Your task to perform on an android device: Go to Wikipedia Image 0: 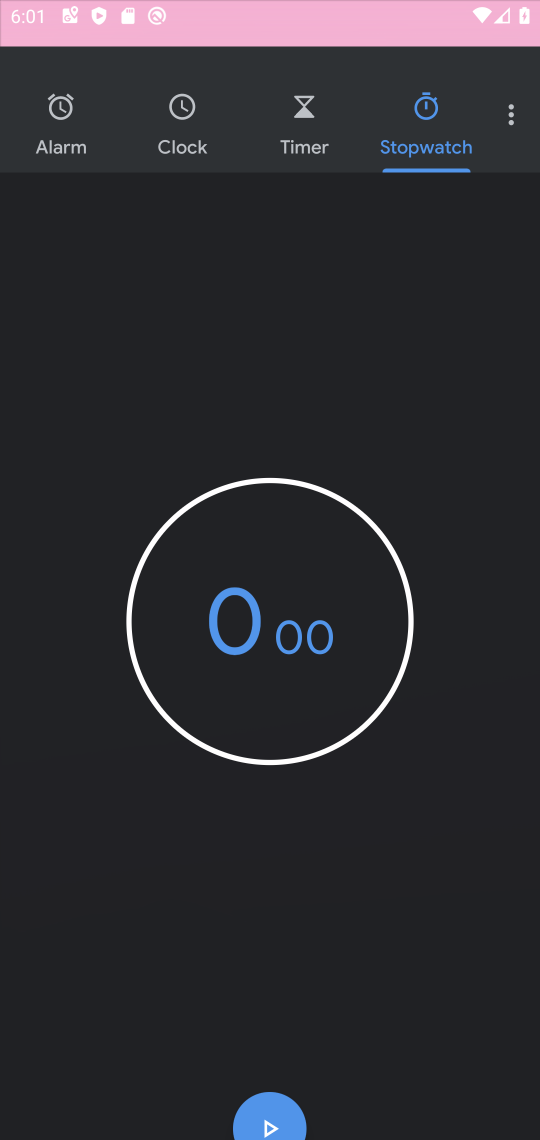
Step 0: press home button
Your task to perform on an android device: Go to Wikipedia Image 1: 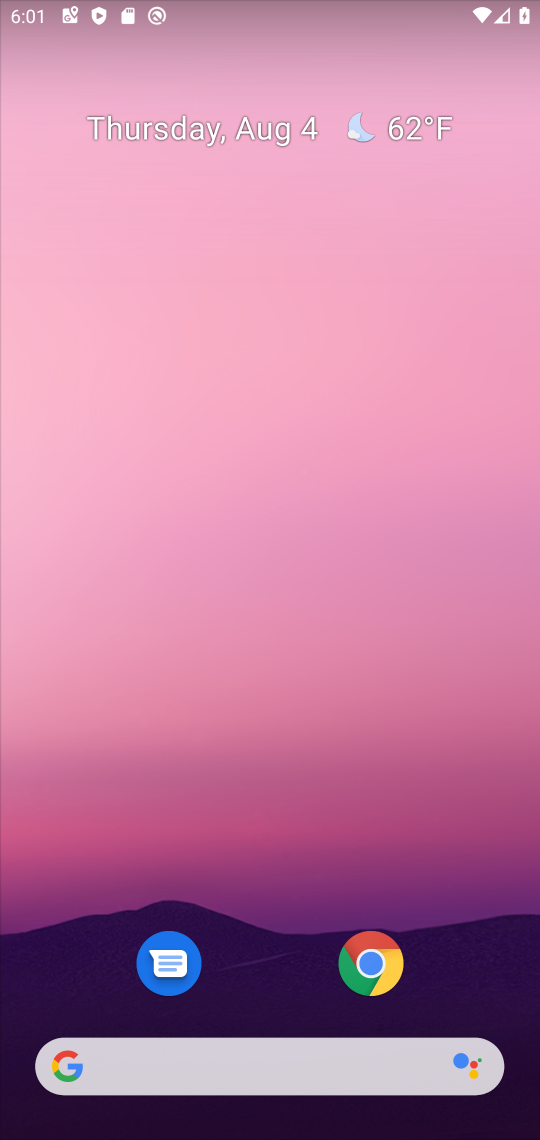
Step 1: click (364, 974)
Your task to perform on an android device: Go to Wikipedia Image 2: 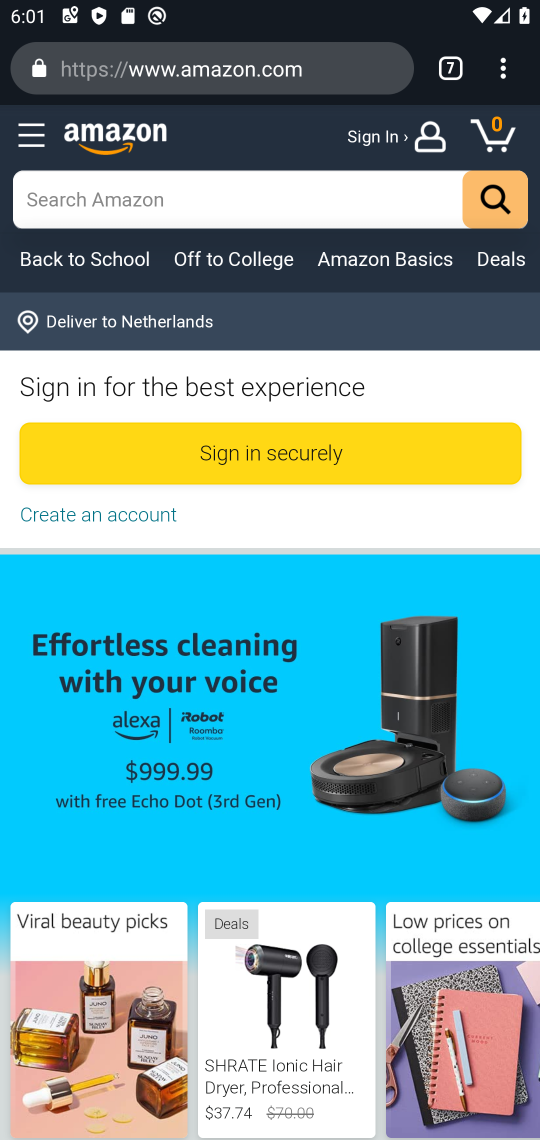
Step 2: click (513, 75)
Your task to perform on an android device: Go to Wikipedia Image 3: 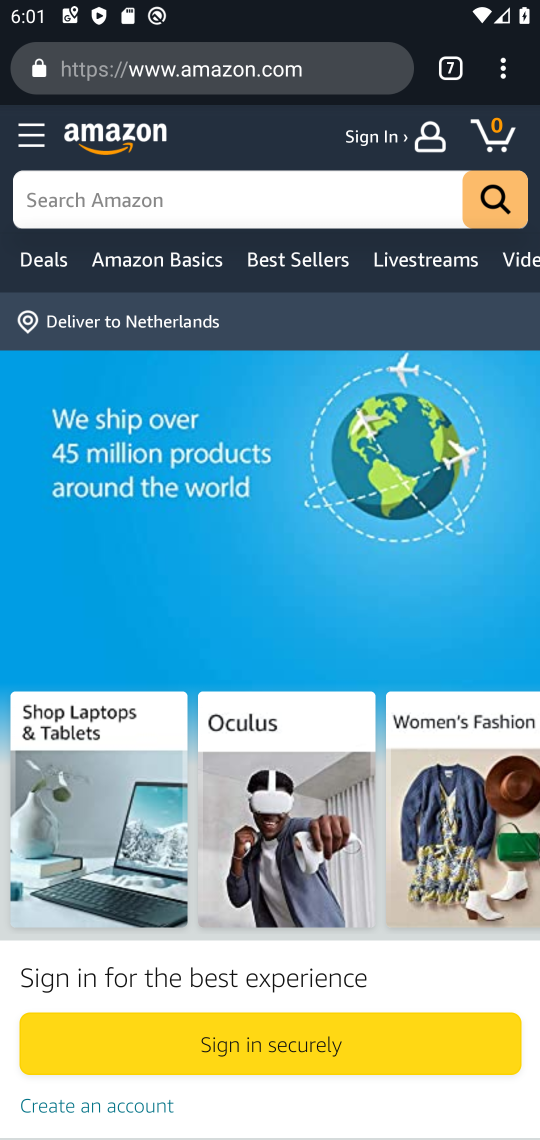
Step 3: click (512, 69)
Your task to perform on an android device: Go to Wikipedia Image 4: 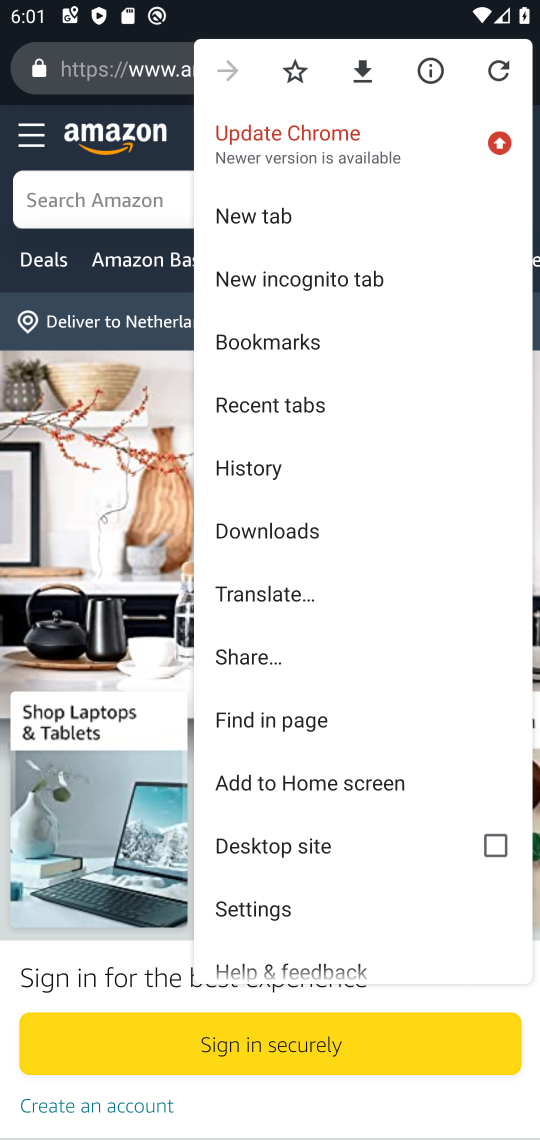
Step 4: click (264, 217)
Your task to perform on an android device: Go to Wikipedia Image 5: 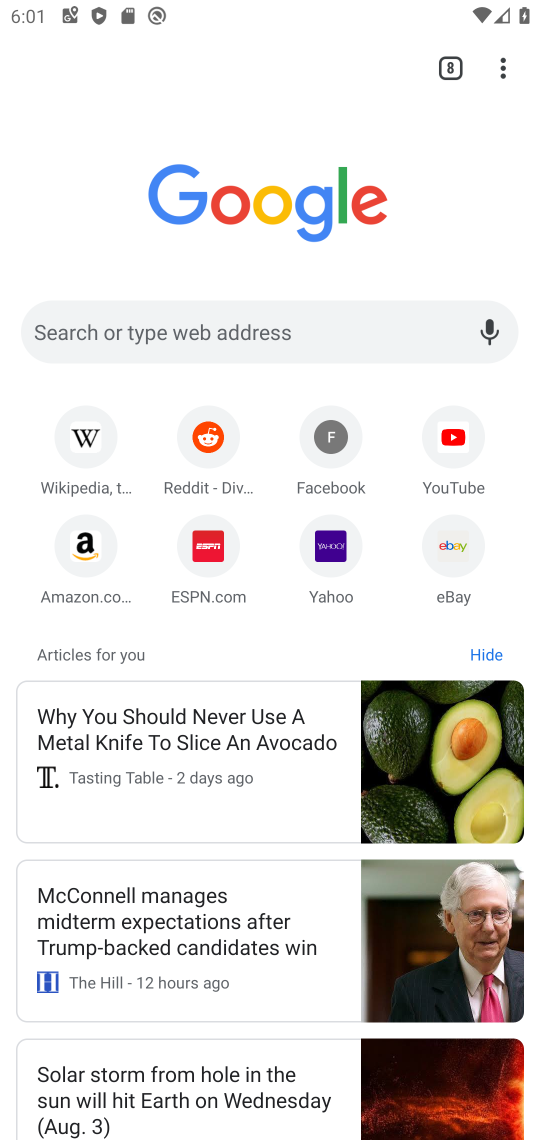
Step 5: click (93, 429)
Your task to perform on an android device: Go to Wikipedia Image 6: 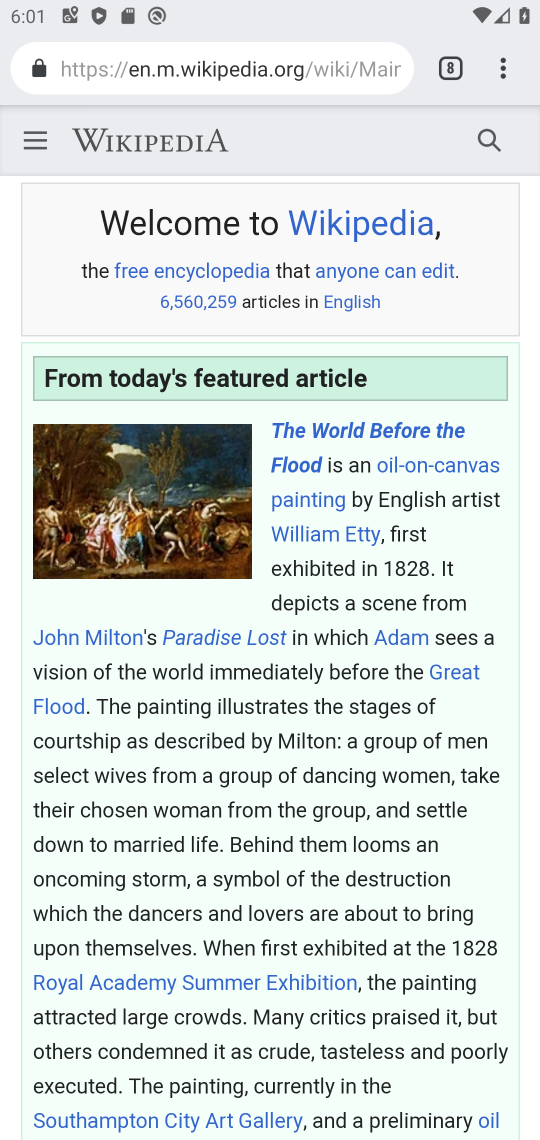
Step 6: task complete